Your task to perform on an android device: change the clock display to digital Image 0: 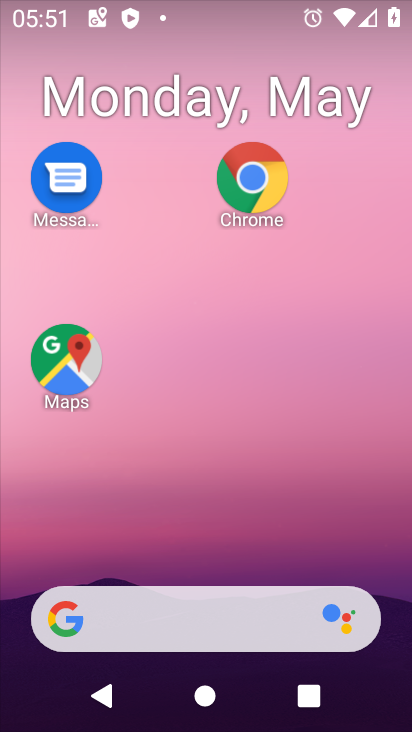
Step 0: drag from (174, 568) to (194, 3)
Your task to perform on an android device: change the clock display to digital Image 1: 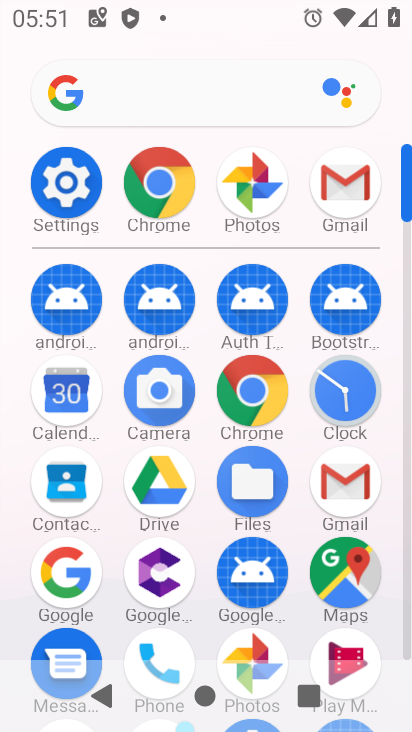
Step 1: click (57, 185)
Your task to perform on an android device: change the clock display to digital Image 2: 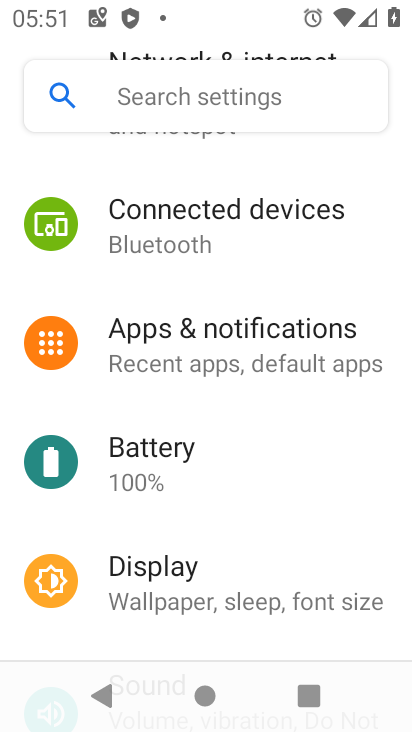
Step 2: press back button
Your task to perform on an android device: change the clock display to digital Image 3: 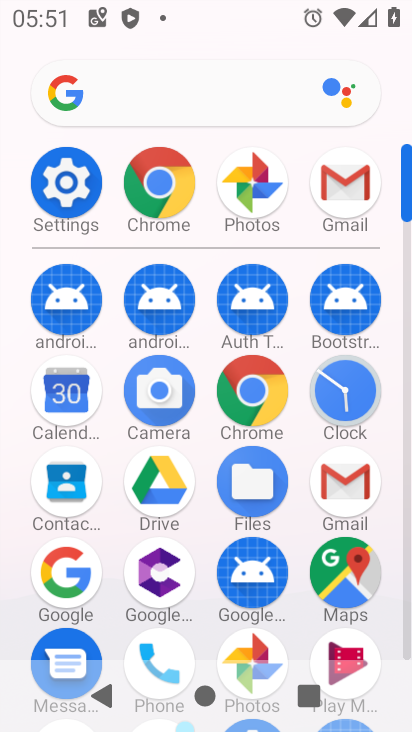
Step 3: click (355, 403)
Your task to perform on an android device: change the clock display to digital Image 4: 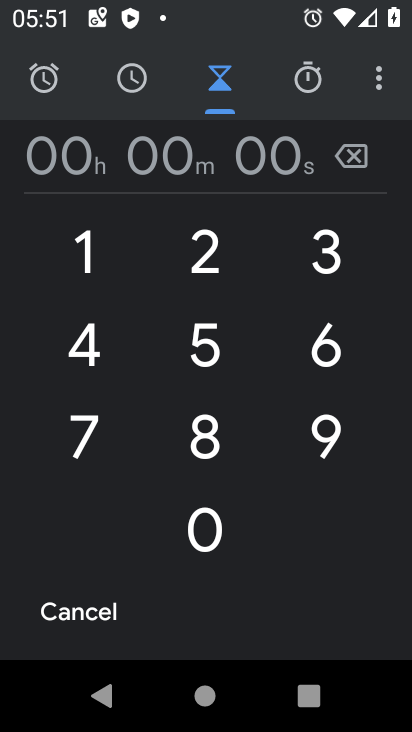
Step 4: click (379, 81)
Your task to perform on an android device: change the clock display to digital Image 5: 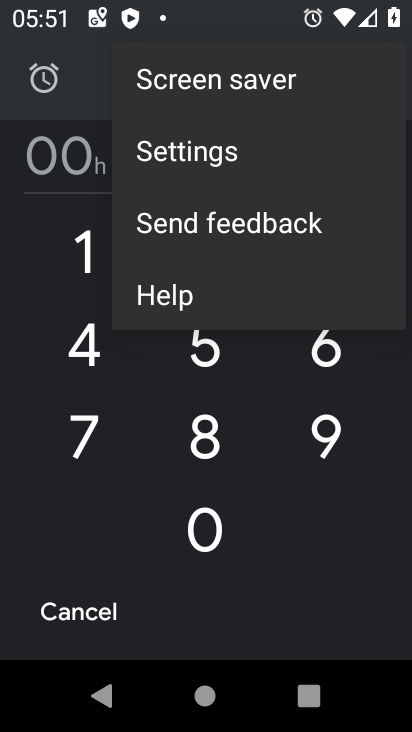
Step 5: click (207, 176)
Your task to perform on an android device: change the clock display to digital Image 6: 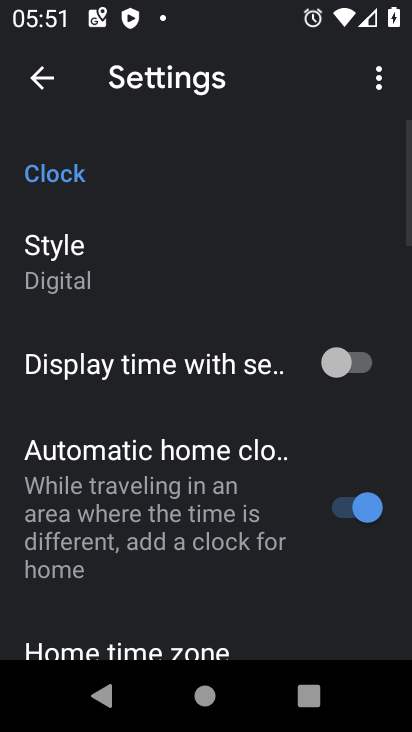
Step 6: click (67, 253)
Your task to perform on an android device: change the clock display to digital Image 7: 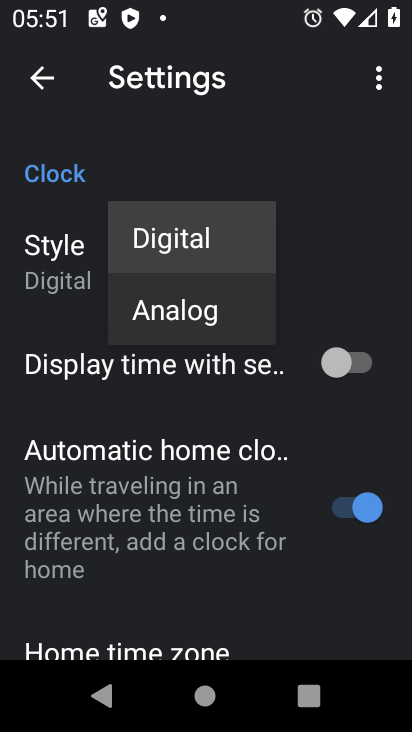
Step 7: click (213, 253)
Your task to perform on an android device: change the clock display to digital Image 8: 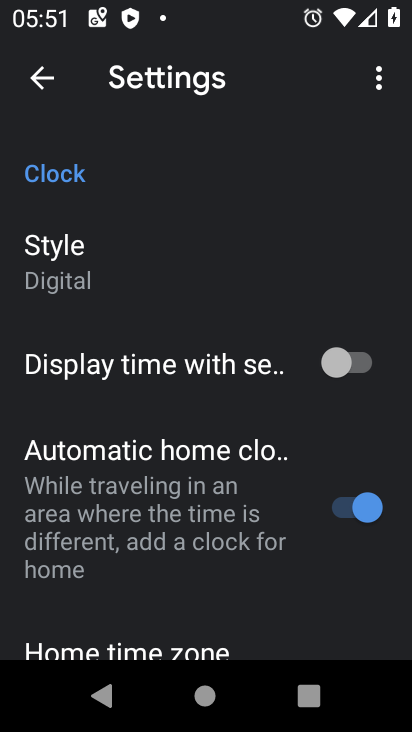
Step 8: task complete